Your task to perform on an android device: toggle javascript in the chrome app Image 0: 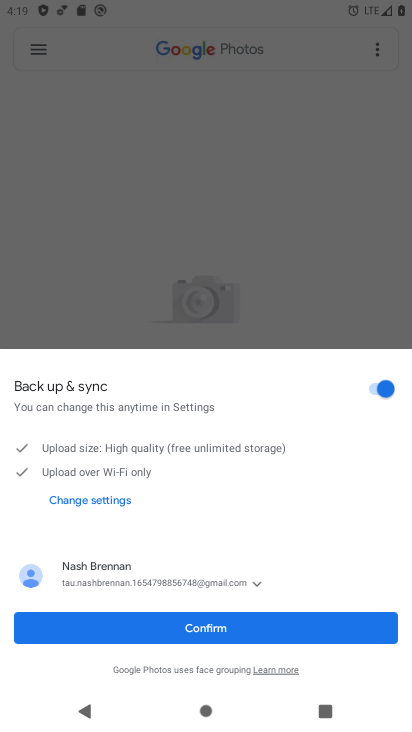
Step 0: press home button
Your task to perform on an android device: toggle javascript in the chrome app Image 1: 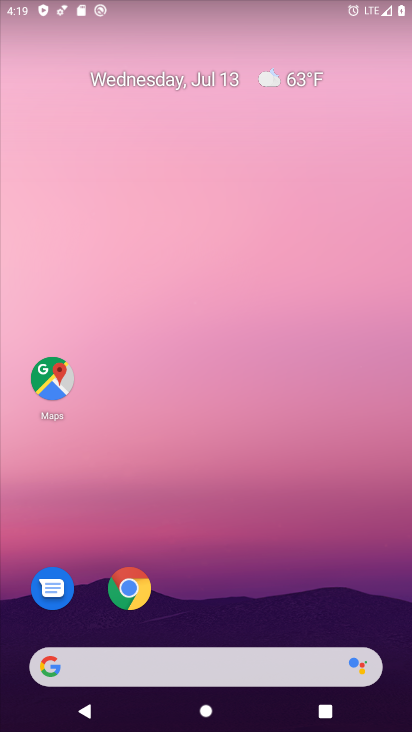
Step 1: click (129, 588)
Your task to perform on an android device: toggle javascript in the chrome app Image 2: 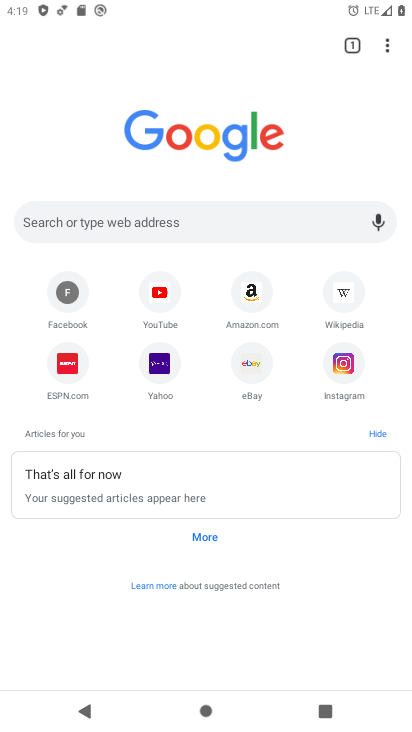
Step 2: click (387, 44)
Your task to perform on an android device: toggle javascript in the chrome app Image 3: 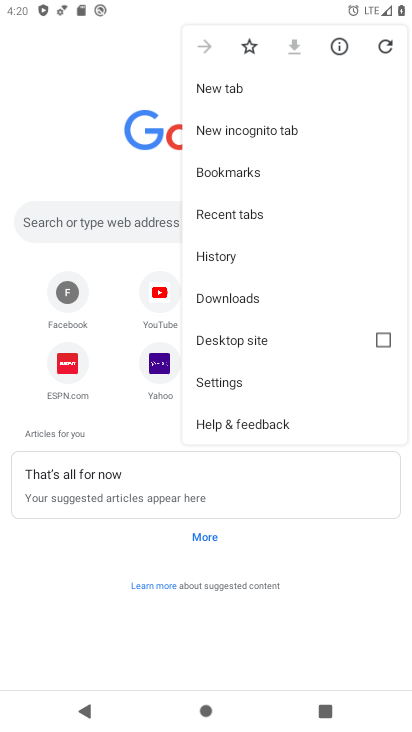
Step 3: click (230, 384)
Your task to perform on an android device: toggle javascript in the chrome app Image 4: 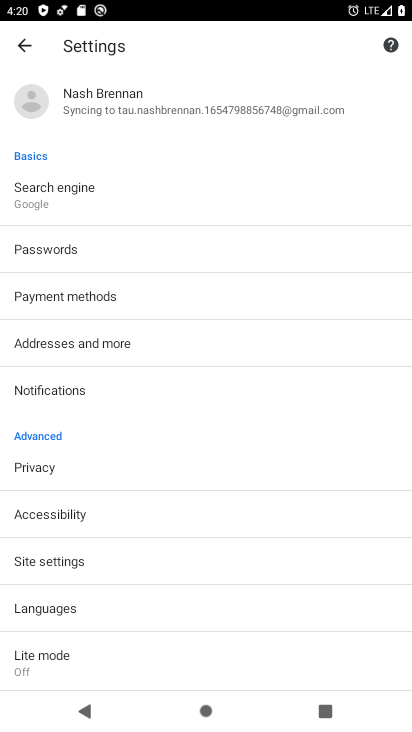
Step 4: click (72, 564)
Your task to perform on an android device: toggle javascript in the chrome app Image 5: 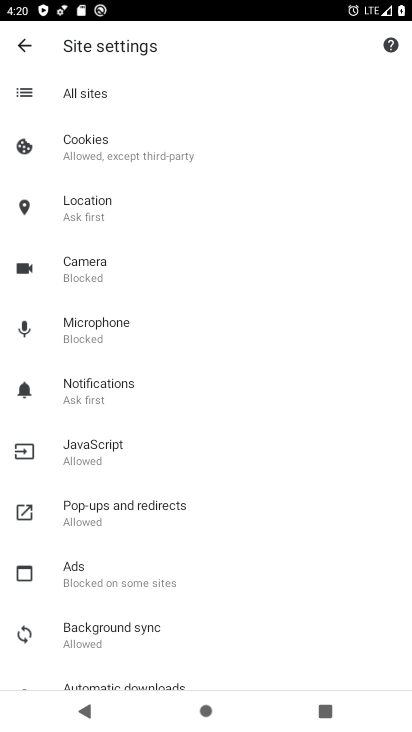
Step 5: click (90, 456)
Your task to perform on an android device: toggle javascript in the chrome app Image 6: 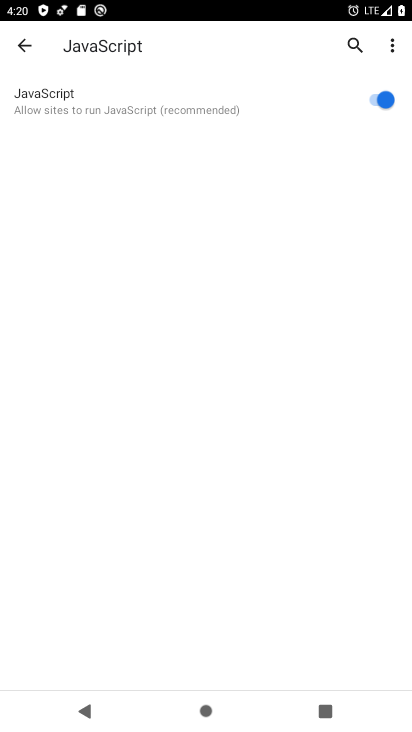
Step 6: click (377, 96)
Your task to perform on an android device: toggle javascript in the chrome app Image 7: 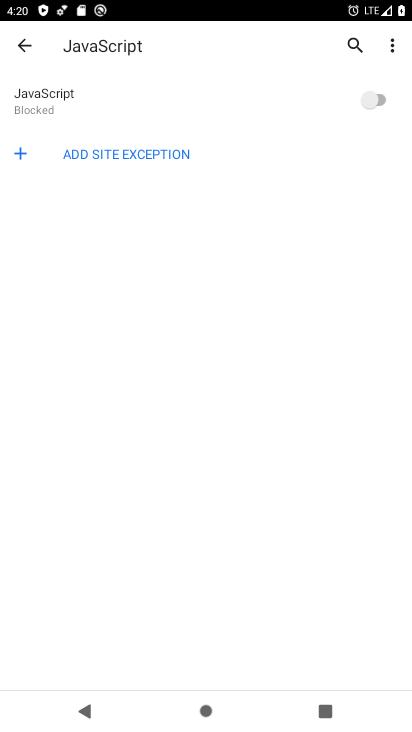
Step 7: task complete